Your task to perform on an android device: toggle improve location accuracy Image 0: 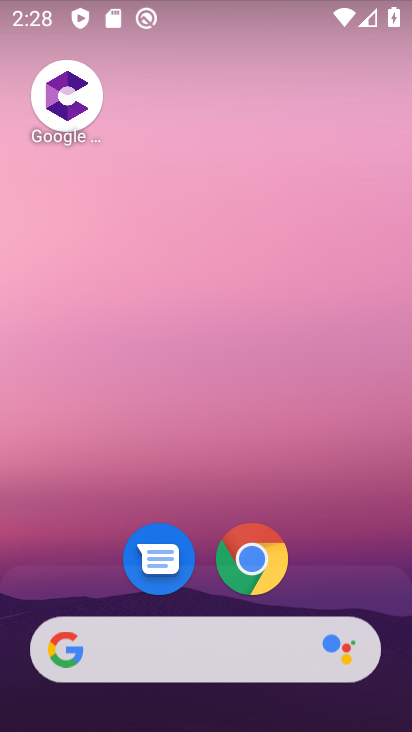
Step 0: drag from (379, 593) to (222, 162)
Your task to perform on an android device: toggle improve location accuracy Image 1: 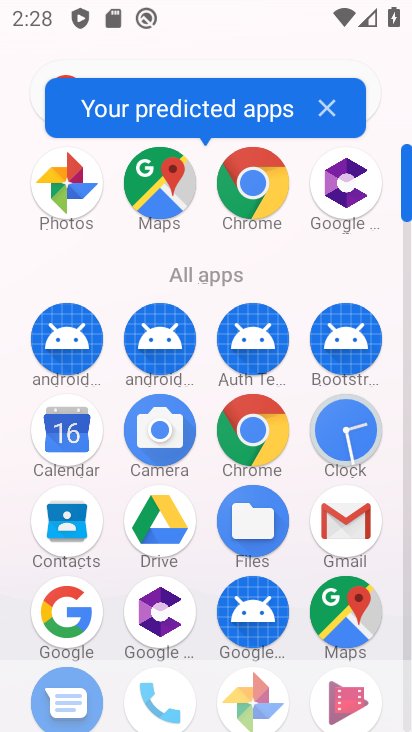
Step 1: click (406, 652)
Your task to perform on an android device: toggle improve location accuracy Image 2: 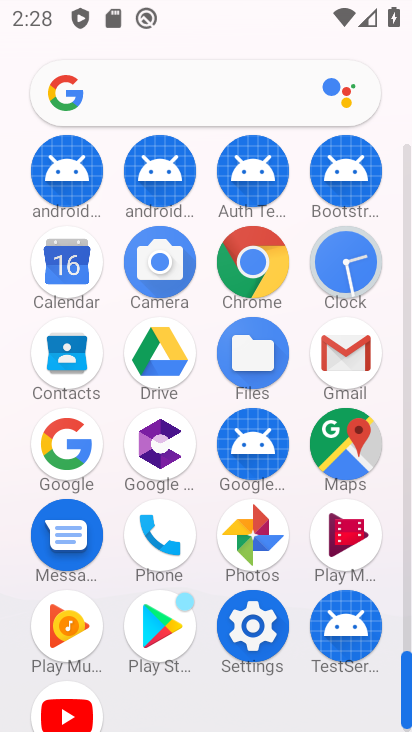
Step 2: click (238, 613)
Your task to perform on an android device: toggle improve location accuracy Image 3: 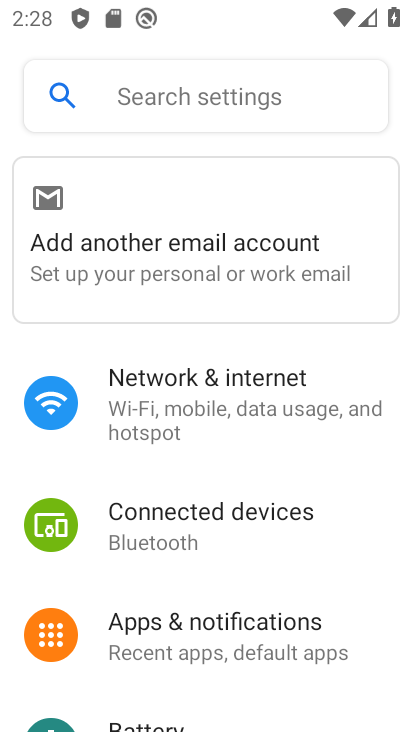
Step 3: drag from (307, 677) to (261, 101)
Your task to perform on an android device: toggle improve location accuracy Image 4: 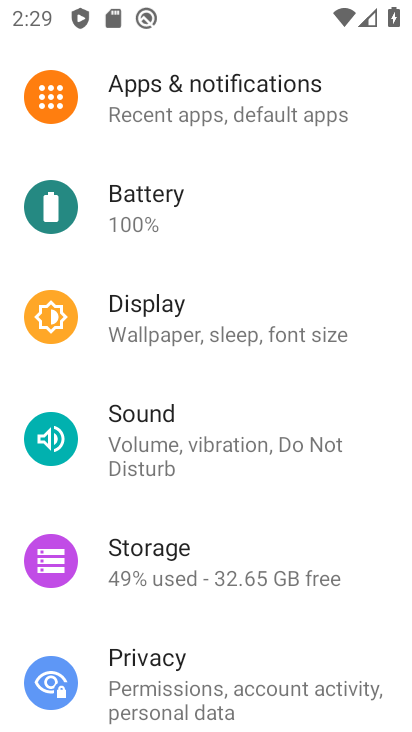
Step 4: drag from (298, 679) to (284, 252)
Your task to perform on an android device: toggle improve location accuracy Image 5: 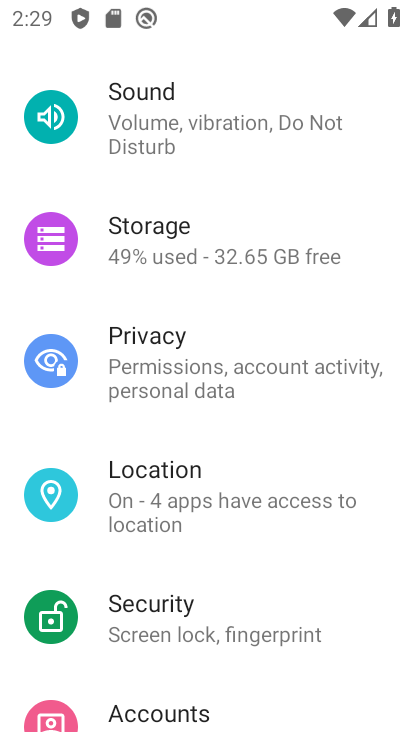
Step 5: click (255, 525)
Your task to perform on an android device: toggle improve location accuracy Image 6: 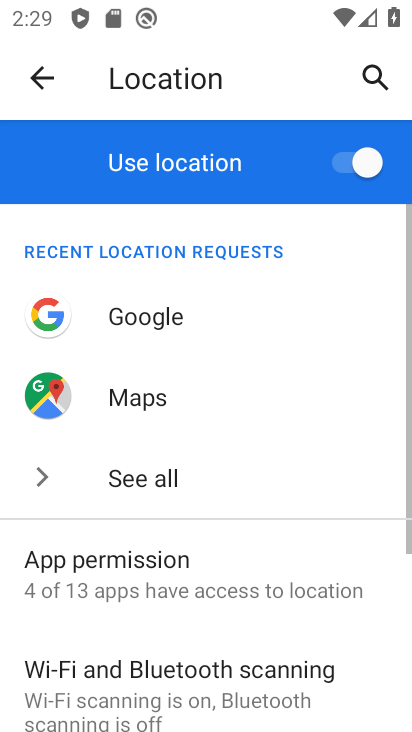
Step 6: drag from (265, 594) to (226, 278)
Your task to perform on an android device: toggle improve location accuracy Image 7: 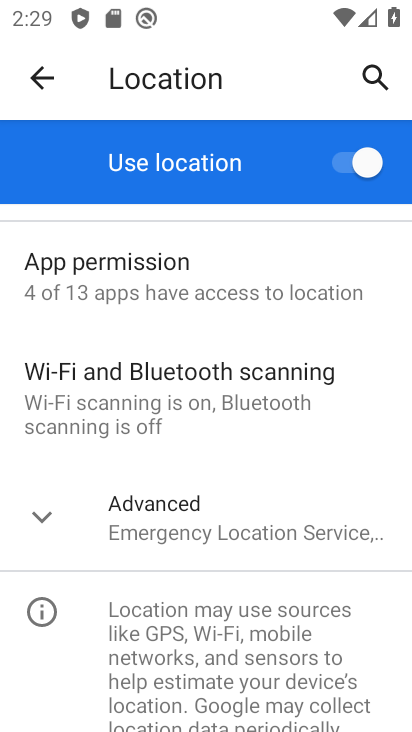
Step 7: click (282, 543)
Your task to perform on an android device: toggle improve location accuracy Image 8: 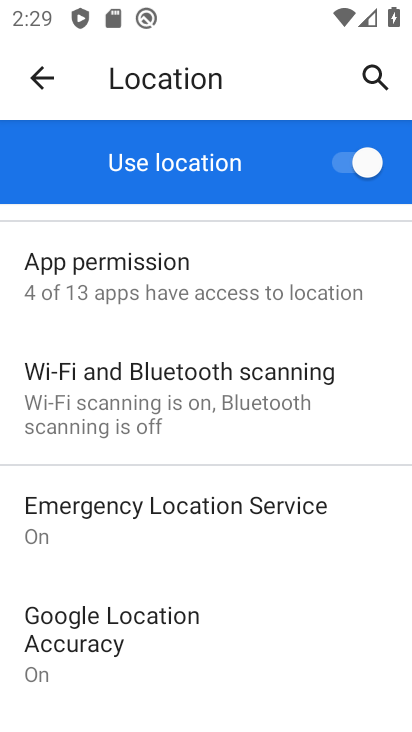
Step 8: drag from (303, 604) to (304, 301)
Your task to perform on an android device: toggle improve location accuracy Image 9: 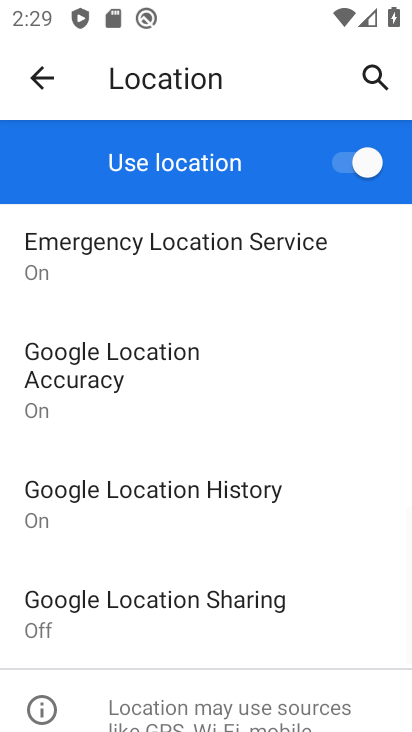
Step 9: click (309, 376)
Your task to perform on an android device: toggle improve location accuracy Image 10: 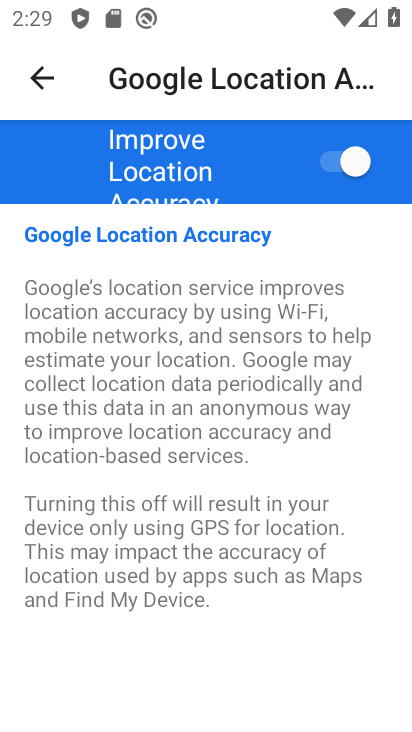
Step 10: click (336, 168)
Your task to perform on an android device: toggle improve location accuracy Image 11: 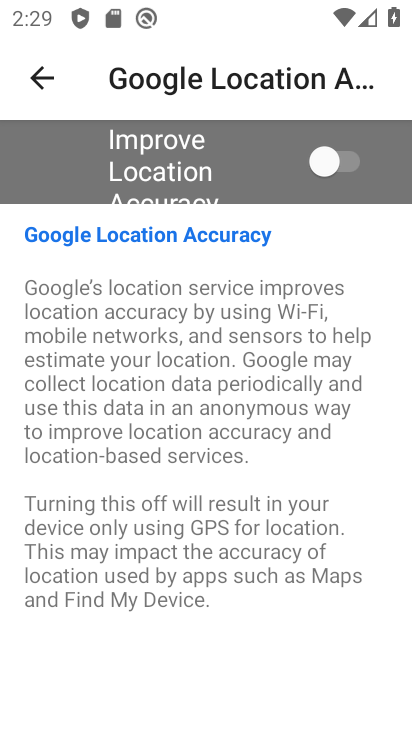
Step 11: task complete